Your task to perform on an android device: Open Youtube and go to the subscriptions tab Image 0: 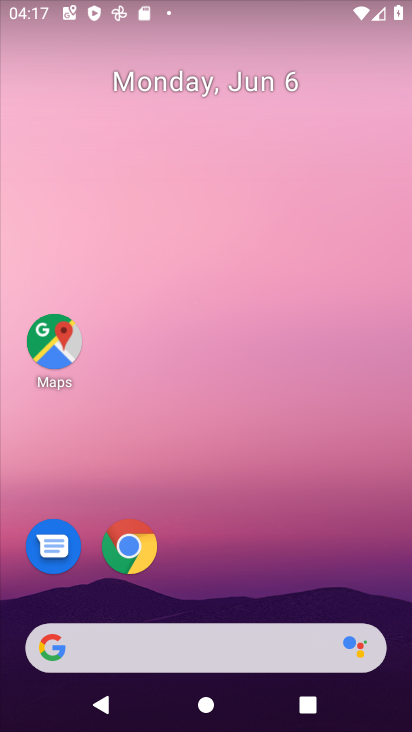
Step 0: drag from (293, 595) to (240, 155)
Your task to perform on an android device: Open Youtube and go to the subscriptions tab Image 1: 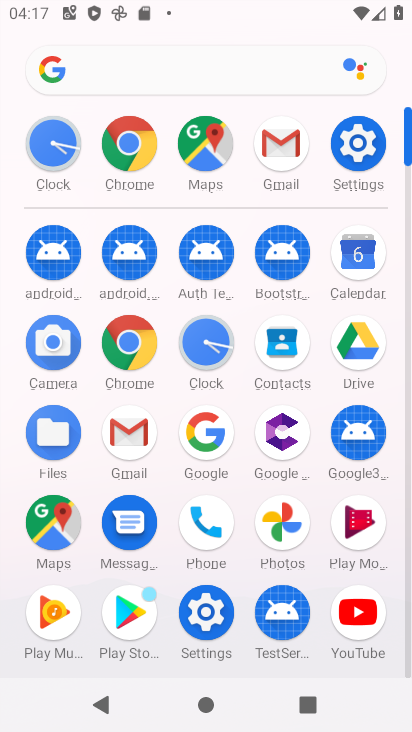
Step 1: click (380, 648)
Your task to perform on an android device: Open Youtube and go to the subscriptions tab Image 2: 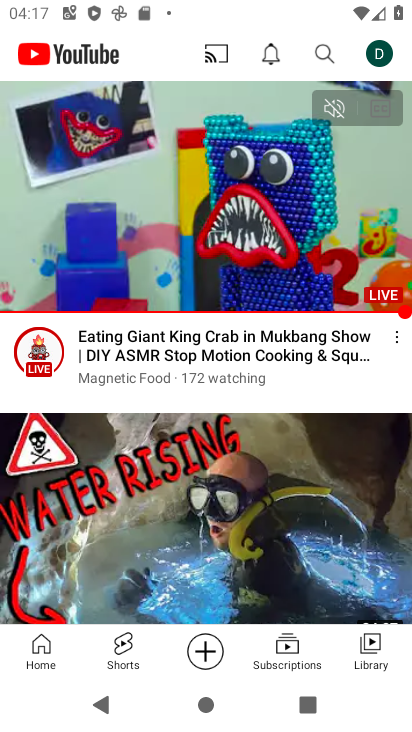
Step 2: click (275, 648)
Your task to perform on an android device: Open Youtube and go to the subscriptions tab Image 3: 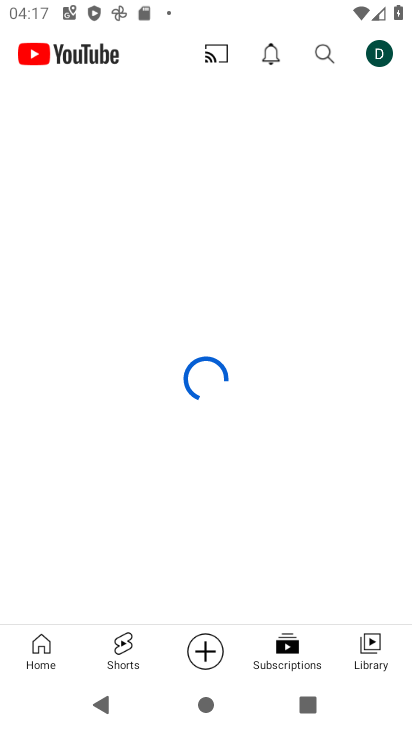
Step 3: task complete